Your task to perform on an android device: Add bose soundlink to the cart on newegg Image 0: 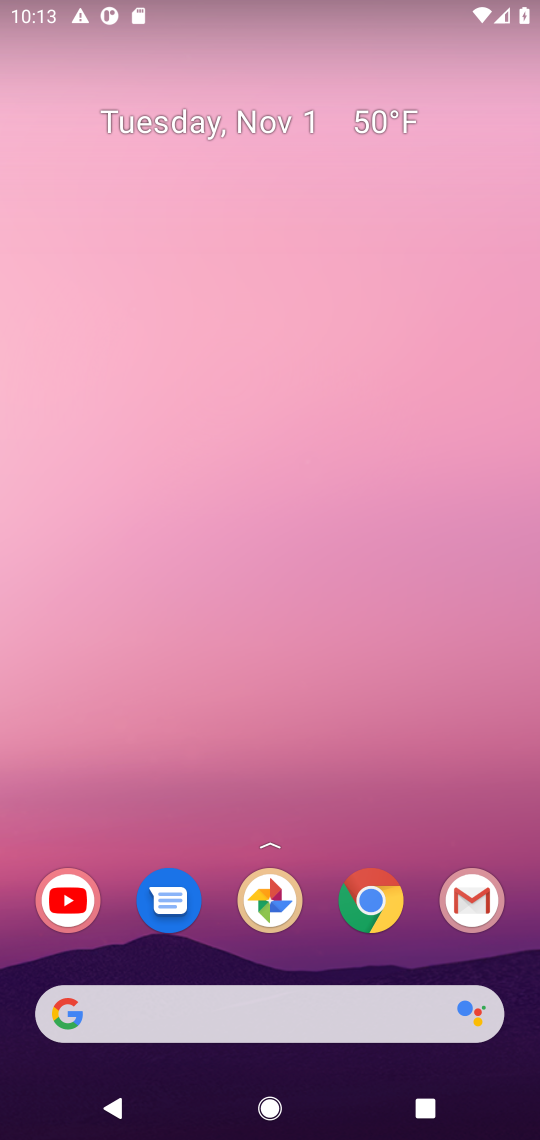
Step 0: click (361, 898)
Your task to perform on an android device: Add bose soundlink to the cart on newegg Image 1: 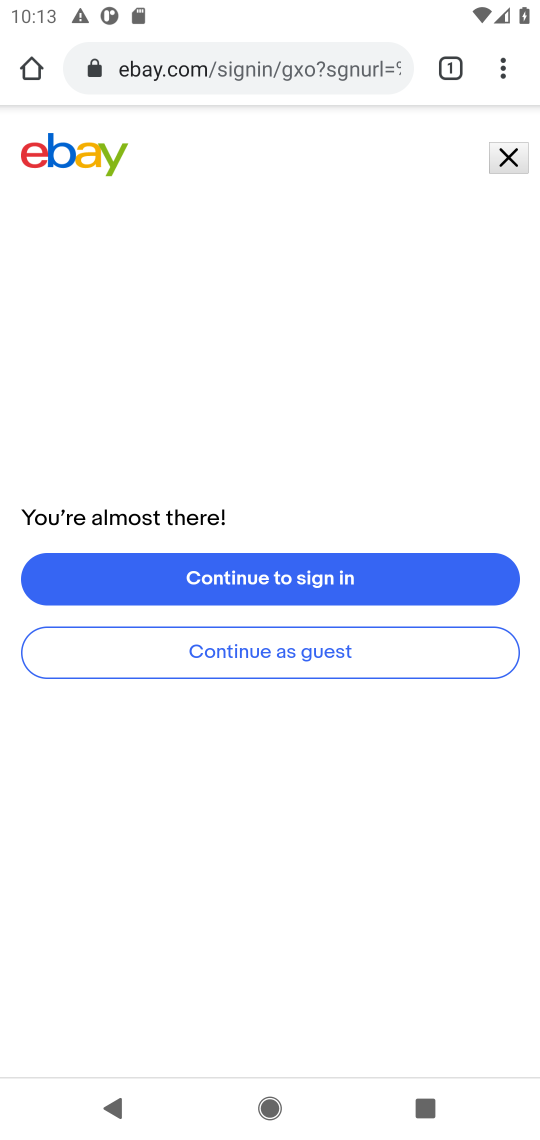
Step 1: click (227, 64)
Your task to perform on an android device: Add bose soundlink to the cart on newegg Image 2: 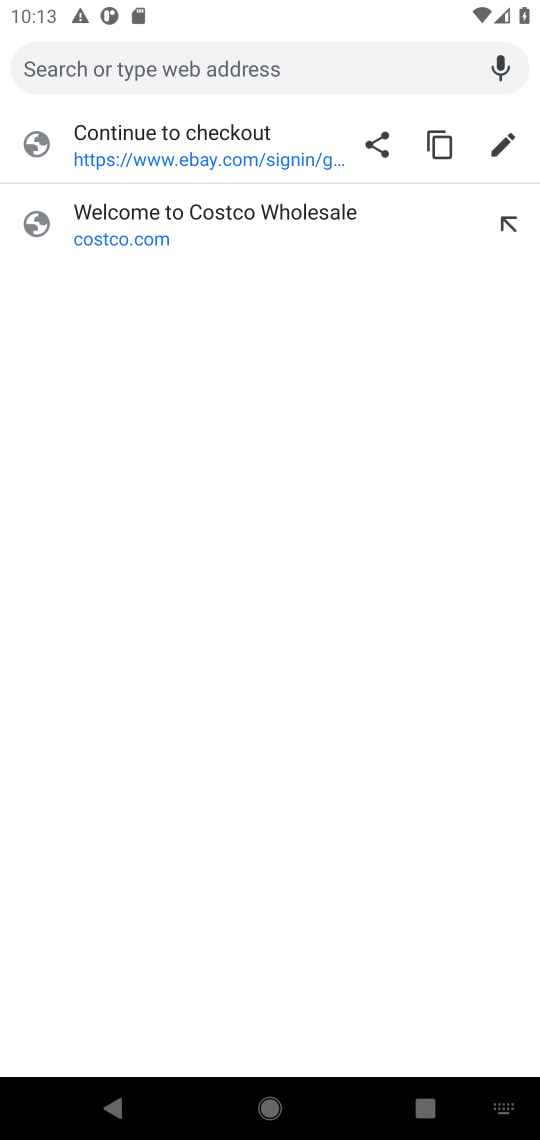
Step 2: type "newegg"
Your task to perform on an android device: Add bose soundlink to the cart on newegg Image 3: 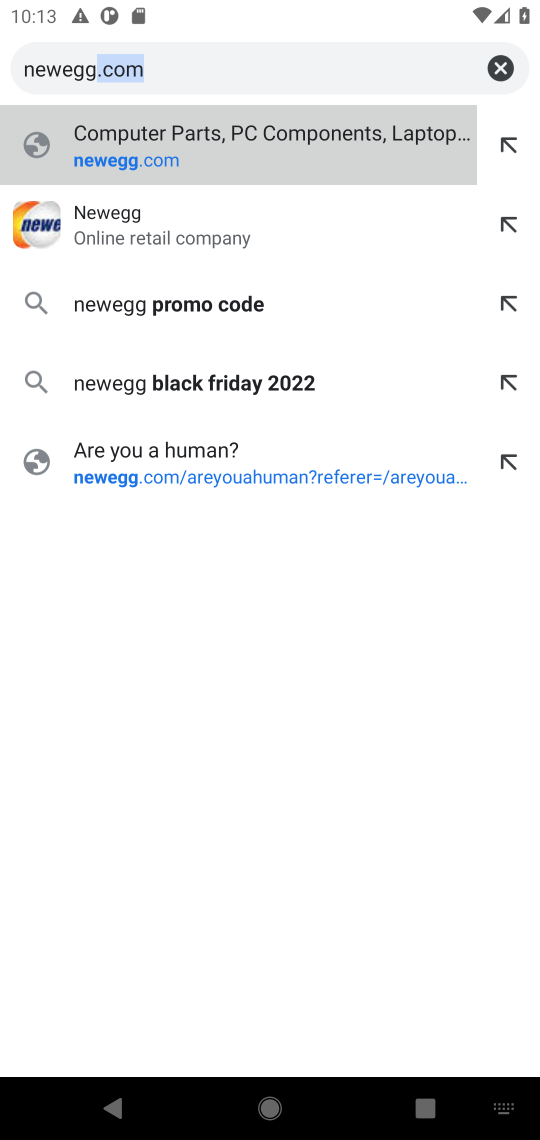
Step 3: click (244, 165)
Your task to perform on an android device: Add bose soundlink to the cart on newegg Image 4: 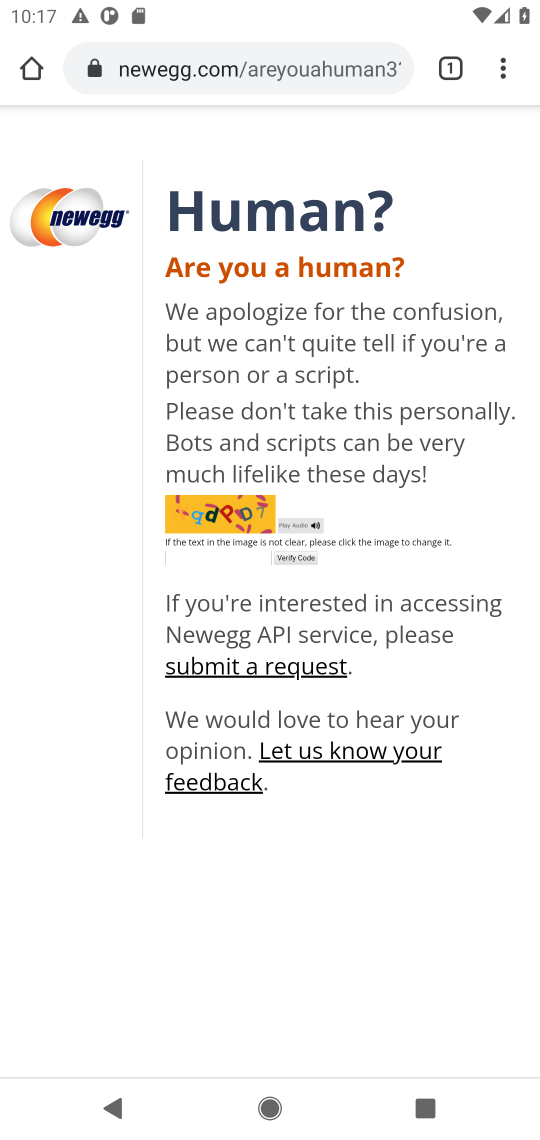
Step 4: task complete